Your task to perform on an android device: open wifi settings Image 0: 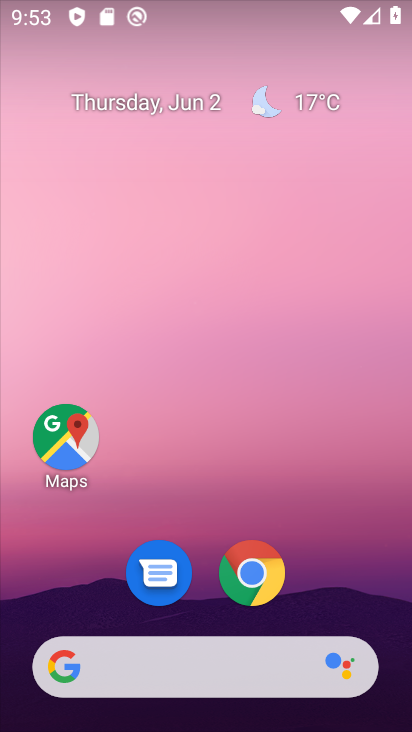
Step 0: task complete